Your task to perform on an android device: make emails show in primary in the gmail app Image 0: 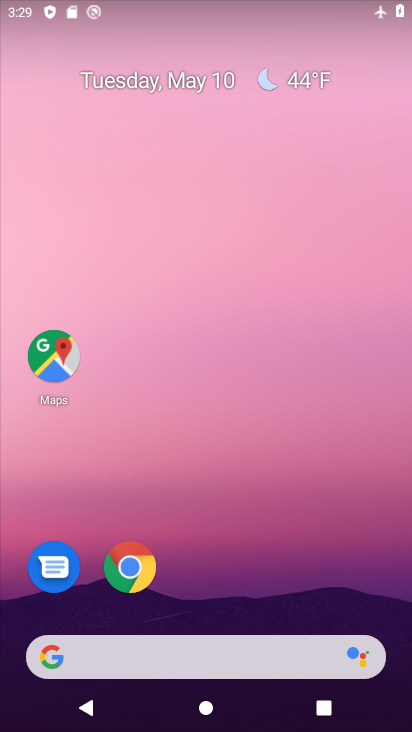
Step 0: drag from (247, 594) to (246, 20)
Your task to perform on an android device: make emails show in primary in the gmail app Image 1: 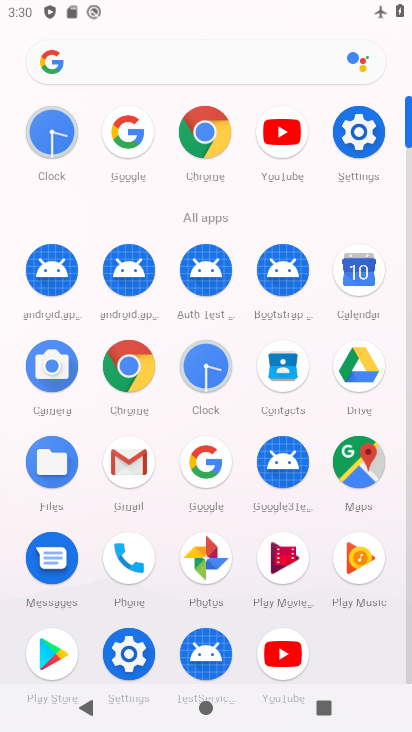
Step 1: click (130, 461)
Your task to perform on an android device: make emails show in primary in the gmail app Image 2: 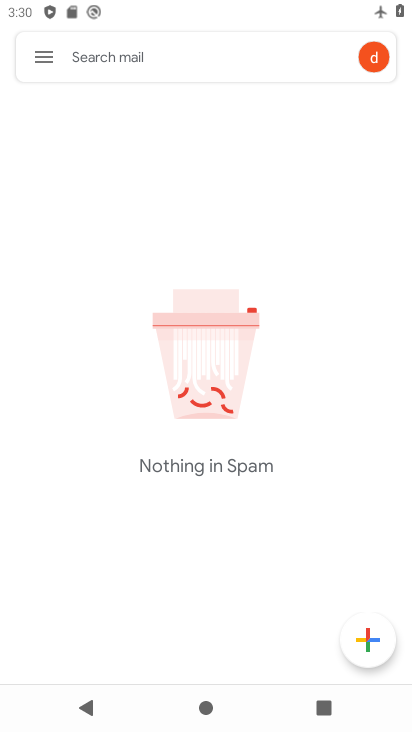
Step 2: click (43, 54)
Your task to perform on an android device: make emails show in primary in the gmail app Image 3: 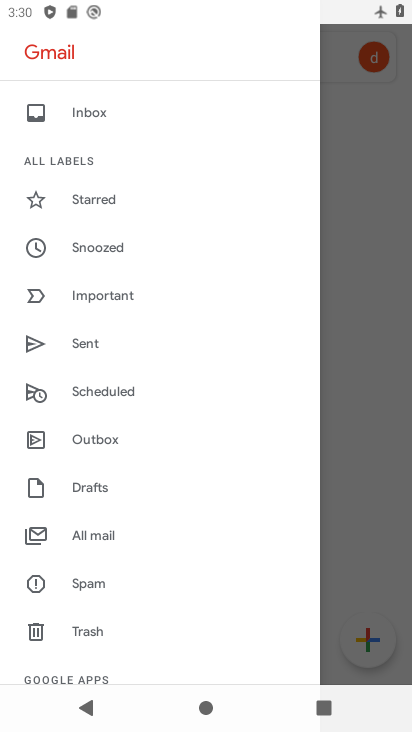
Step 3: drag from (107, 468) to (134, 366)
Your task to perform on an android device: make emails show in primary in the gmail app Image 4: 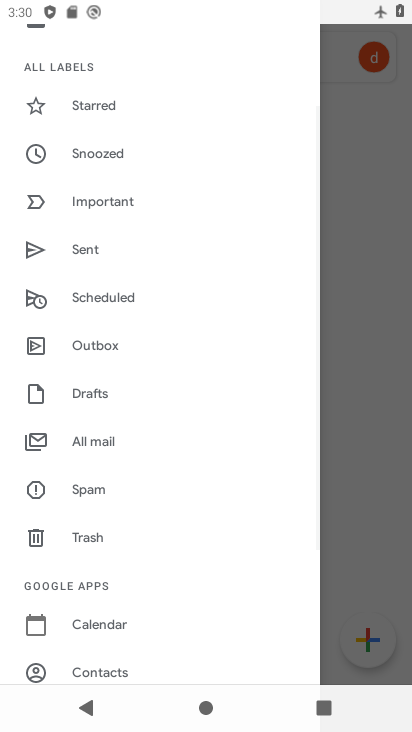
Step 4: drag from (101, 522) to (135, 289)
Your task to perform on an android device: make emails show in primary in the gmail app Image 5: 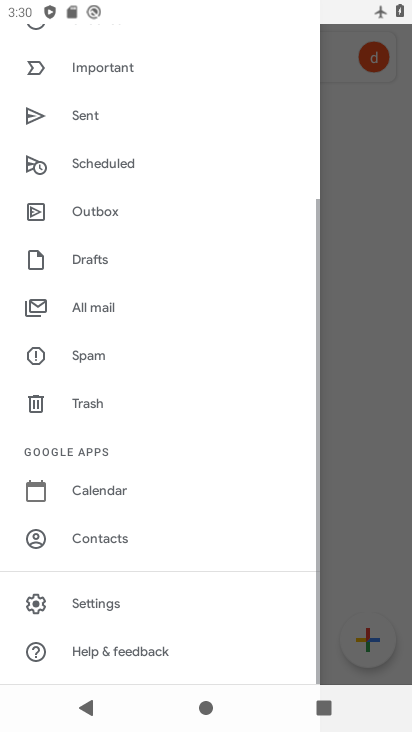
Step 5: click (88, 599)
Your task to perform on an android device: make emails show in primary in the gmail app Image 6: 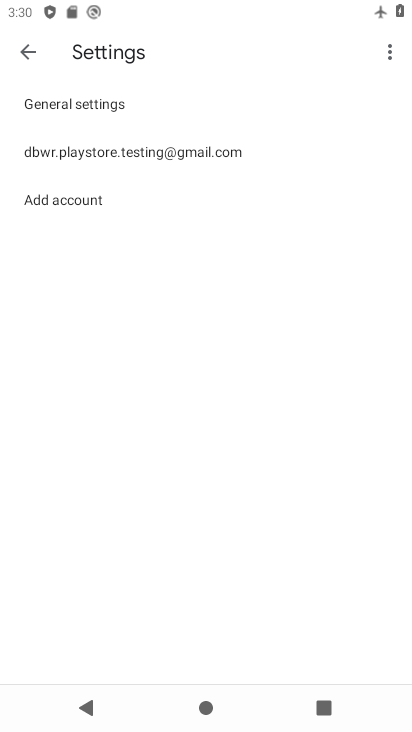
Step 6: click (60, 152)
Your task to perform on an android device: make emails show in primary in the gmail app Image 7: 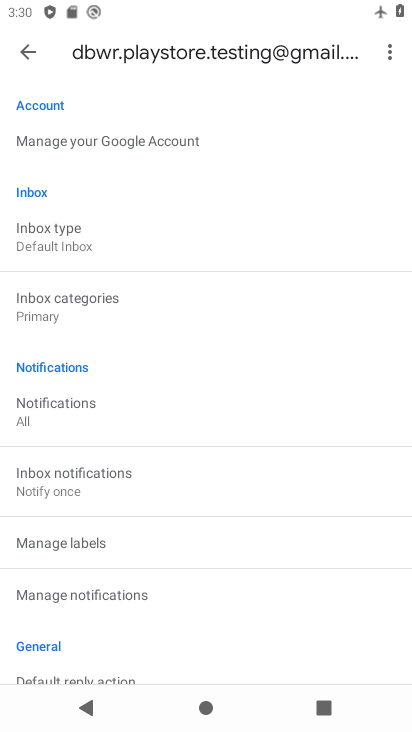
Step 7: click (62, 224)
Your task to perform on an android device: make emails show in primary in the gmail app Image 8: 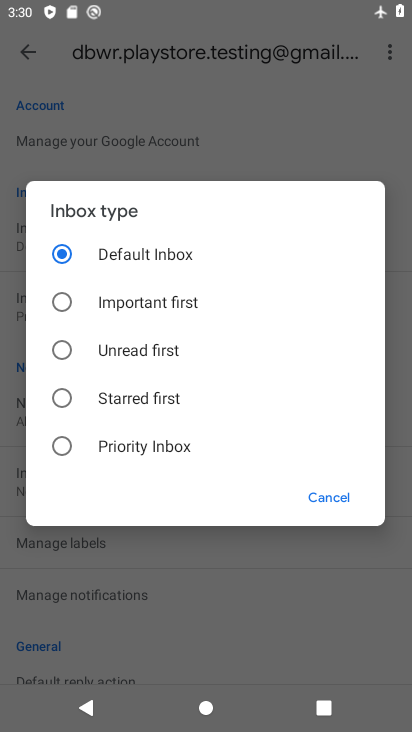
Step 8: click (64, 245)
Your task to perform on an android device: make emails show in primary in the gmail app Image 9: 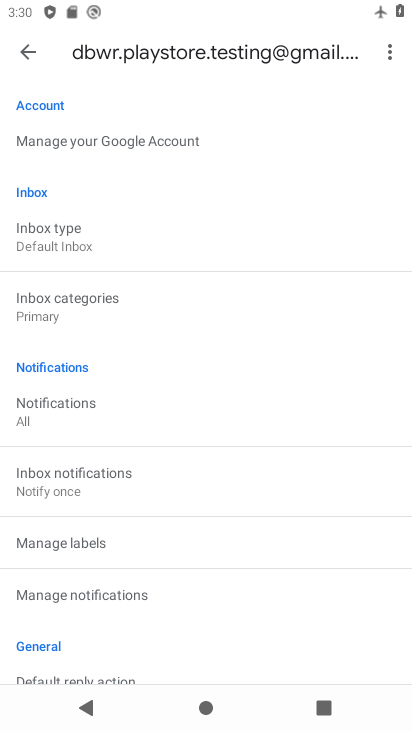
Step 9: click (54, 297)
Your task to perform on an android device: make emails show in primary in the gmail app Image 10: 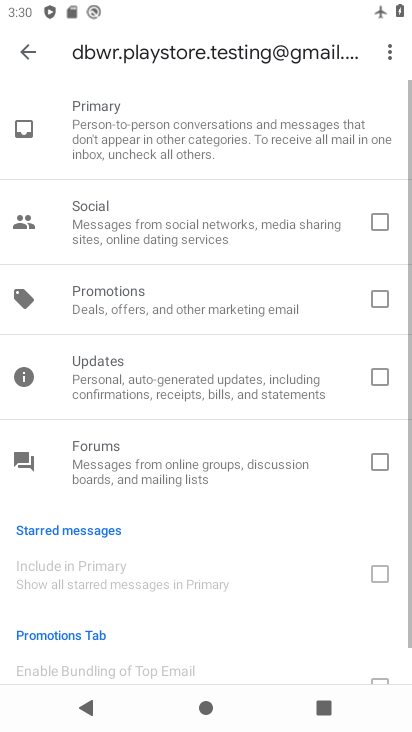
Step 10: task complete